Your task to perform on an android device: Go to sound settings Image 0: 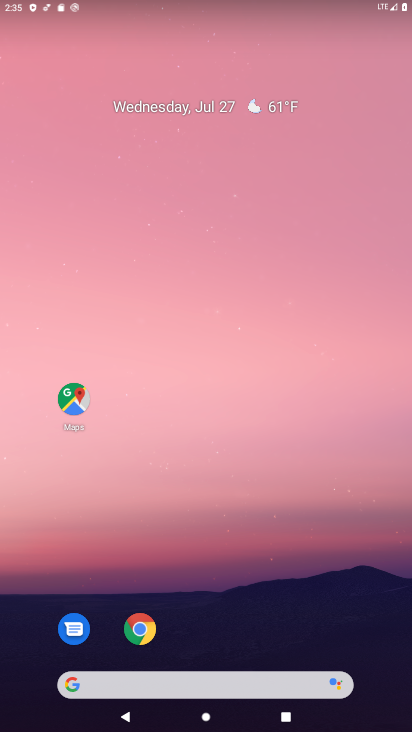
Step 0: drag from (197, 686) to (409, 19)
Your task to perform on an android device: Go to sound settings Image 1: 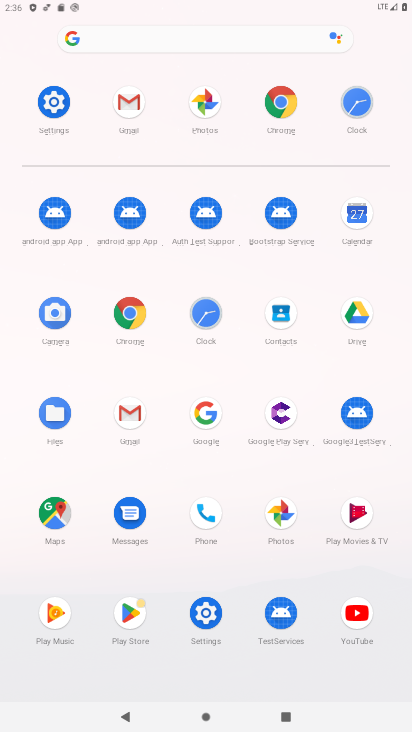
Step 1: click (54, 102)
Your task to perform on an android device: Go to sound settings Image 2: 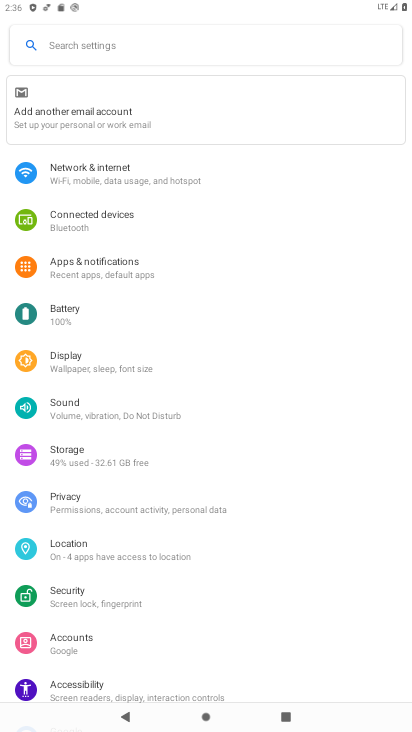
Step 2: click (72, 411)
Your task to perform on an android device: Go to sound settings Image 3: 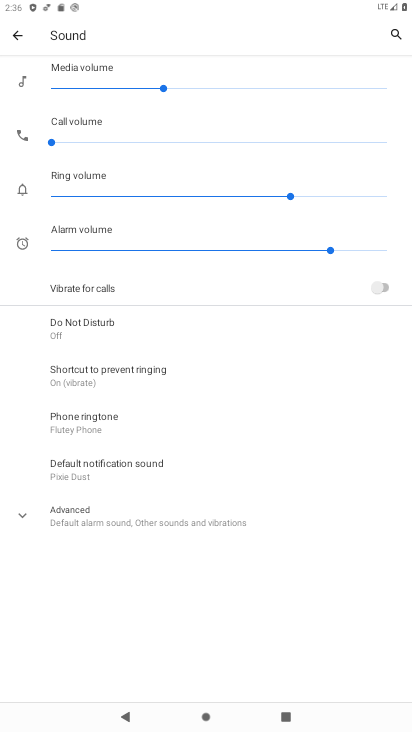
Step 3: task complete